Your task to perform on an android device: turn on bluetooth scan Image 0: 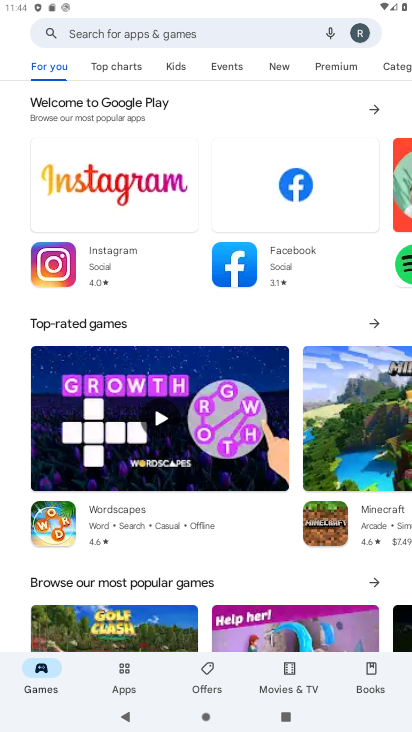
Step 0: press home button
Your task to perform on an android device: turn on bluetooth scan Image 1: 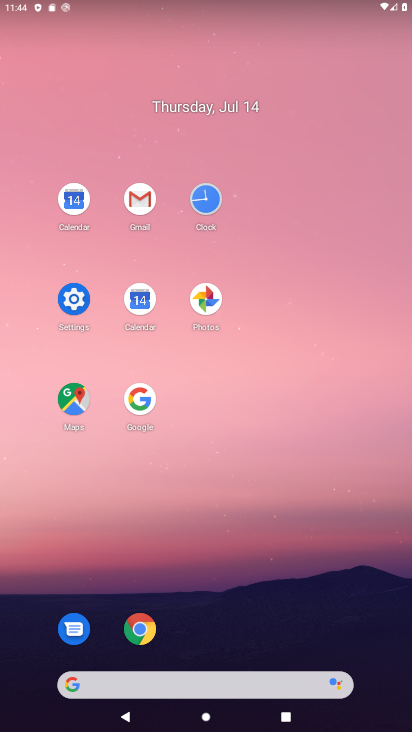
Step 1: click (81, 289)
Your task to perform on an android device: turn on bluetooth scan Image 2: 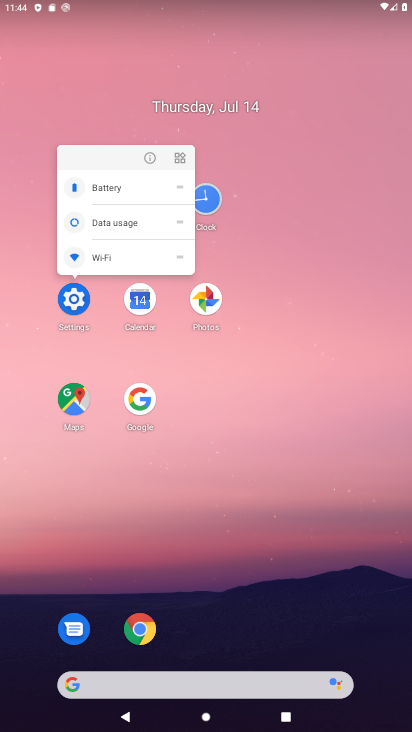
Step 2: click (65, 303)
Your task to perform on an android device: turn on bluetooth scan Image 3: 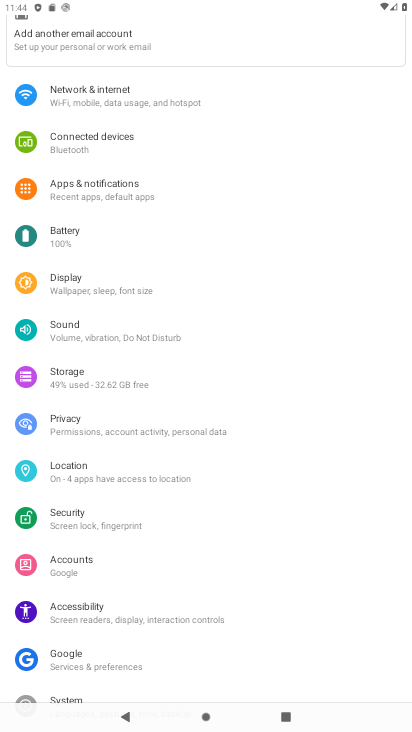
Step 3: click (130, 480)
Your task to perform on an android device: turn on bluetooth scan Image 4: 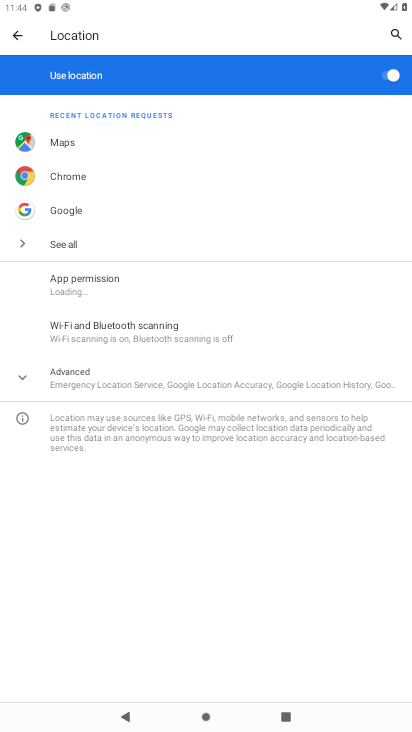
Step 4: click (109, 330)
Your task to perform on an android device: turn on bluetooth scan Image 5: 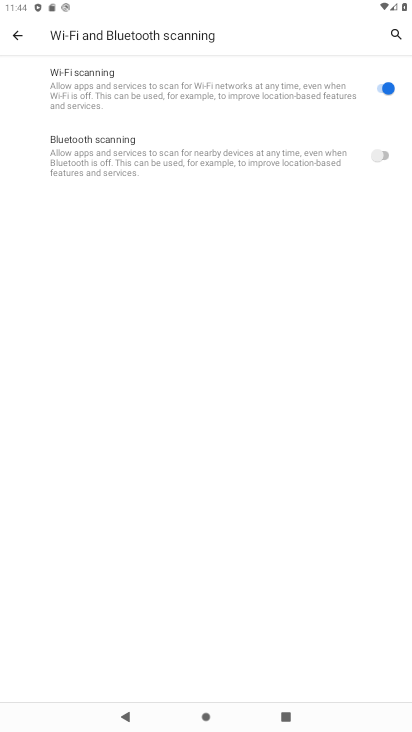
Step 5: click (385, 164)
Your task to perform on an android device: turn on bluetooth scan Image 6: 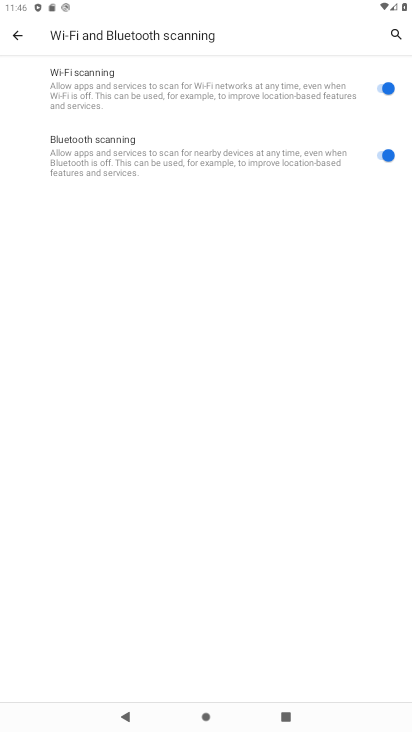
Step 6: task complete